Your task to perform on an android device: change the clock style Image 0: 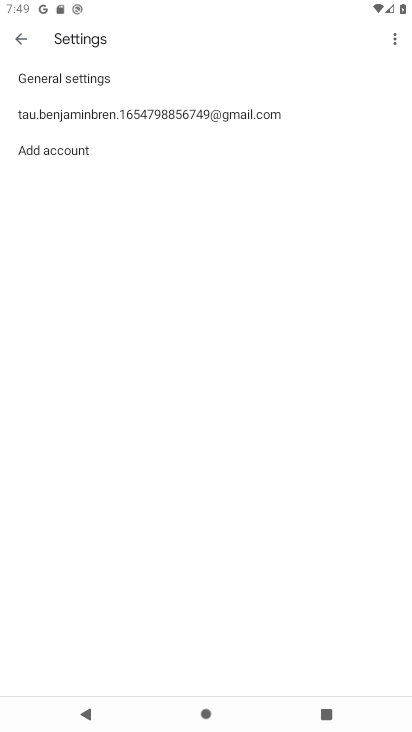
Step 0: press home button
Your task to perform on an android device: change the clock style Image 1: 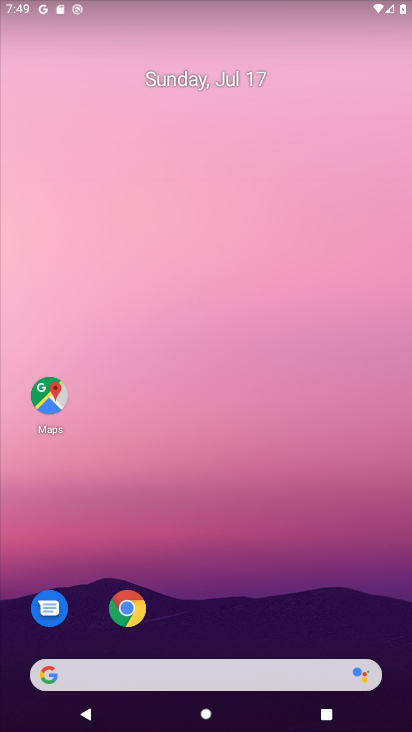
Step 1: drag from (200, 657) to (226, 168)
Your task to perform on an android device: change the clock style Image 2: 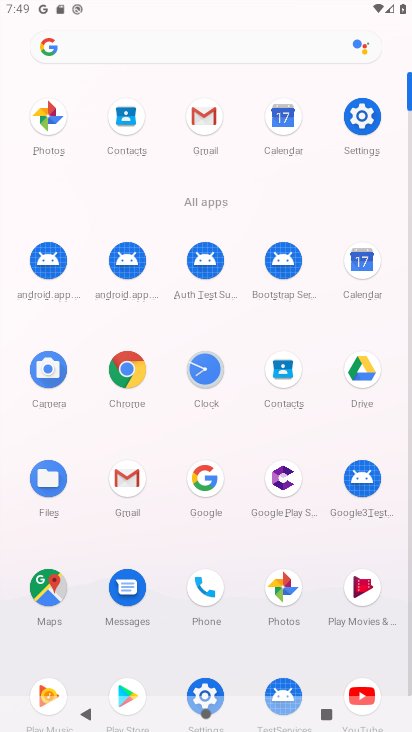
Step 2: click (213, 365)
Your task to perform on an android device: change the clock style Image 3: 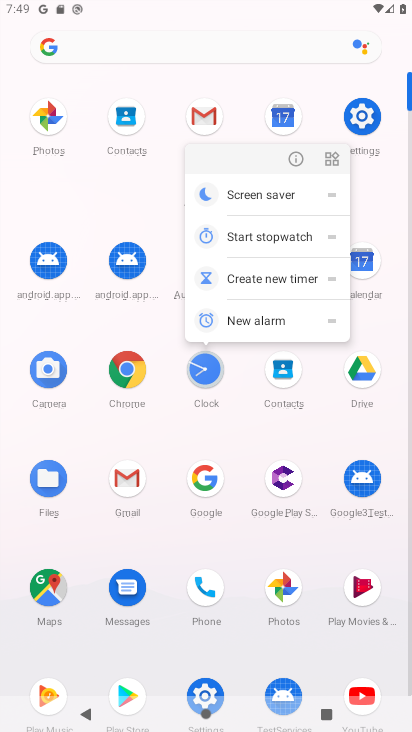
Step 3: click (211, 374)
Your task to perform on an android device: change the clock style Image 4: 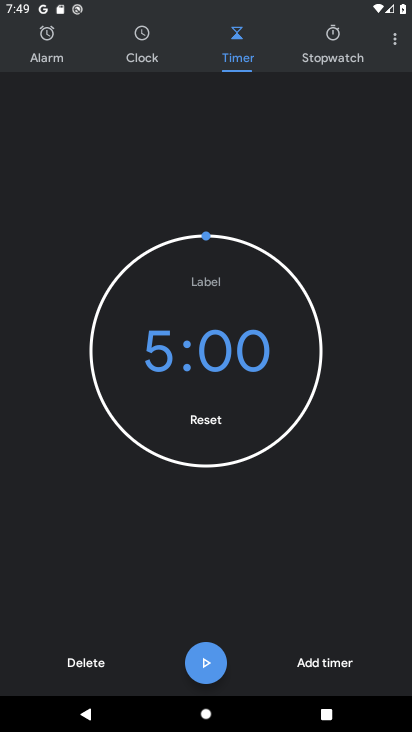
Step 4: click (390, 40)
Your task to perform on an android device: change the clock style Image 5: 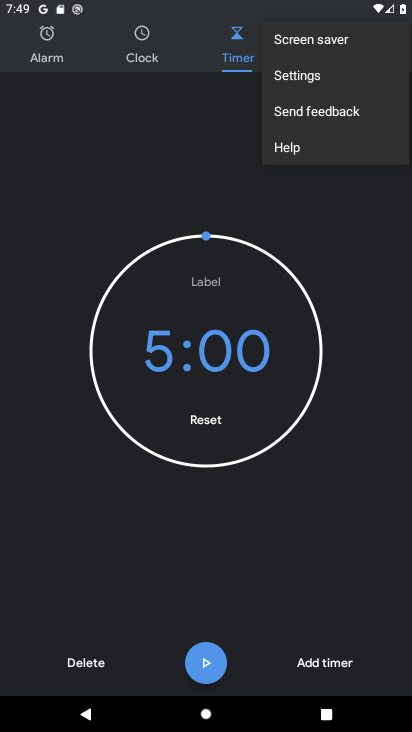
Step 5: click (287, 82)
Your task to perform on an android device: change the clock style Image 6: 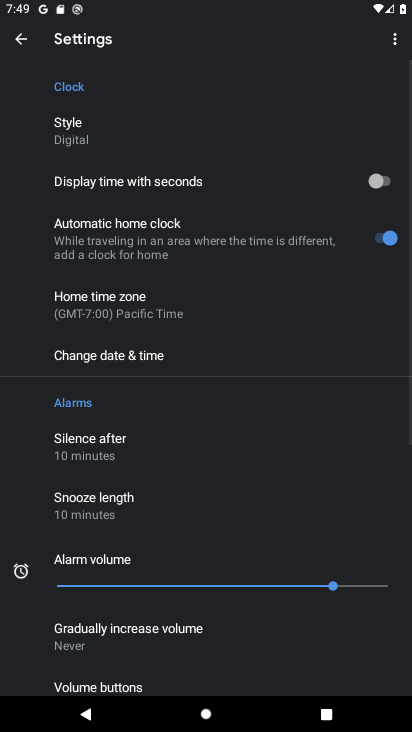
Step 6: click (67, 123)
Your task to perform on an android device: change the clock style Image 7: 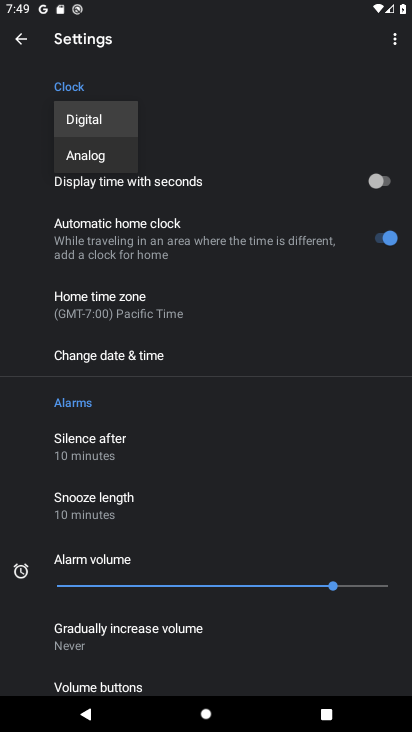
Step 7: click (91, 152)
Your task to perform on an android device: change the clock style Image 8: 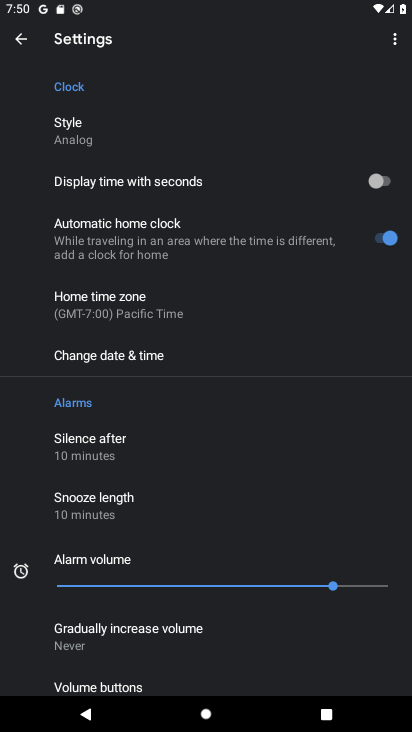
Step 8: task complete